Your task to perform on an android device: turn on the 24-hour format for clock Image 0: 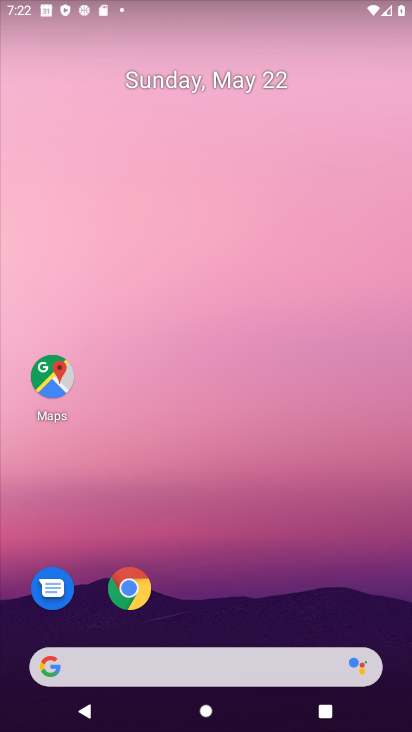
Step 0: drag from (250, 513) to (208, 30)
Your task to perform on an android device: turn on the 24-hour format for clock Image 1: 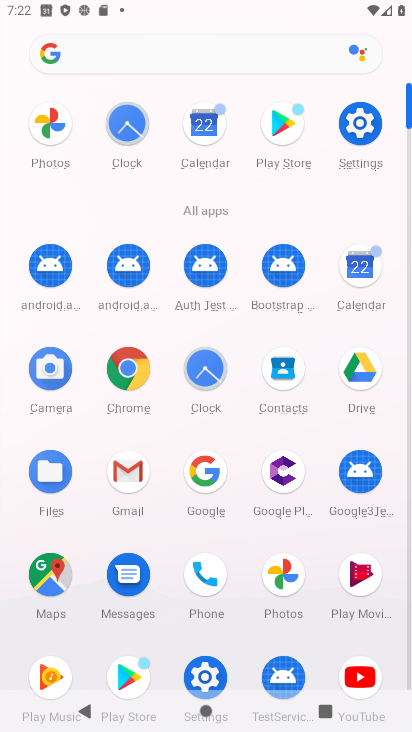
Step 1: click (126, 123)
Your task to perform on an android device: turn on the 24-hour format for clock Image 2: 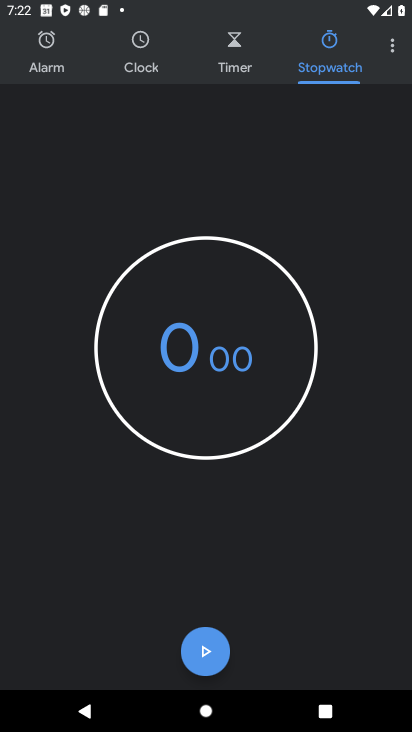
Step 2: click (391, 46)
Your task to perform on an android device: turn on the 24-hour format for clock Image 3: 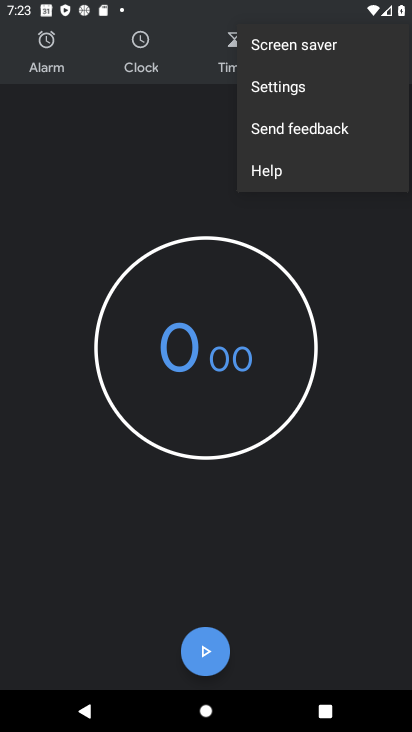
Step 3: click (269, 85)
Your task to perform on an android device: turn on the 24-hour format for clock Image 4: 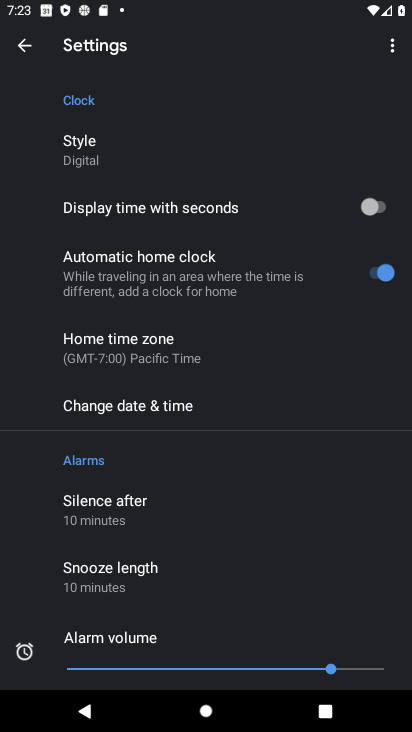
Step 4: click (156, 399)
Your task to perform on an android device: turn on the 24-hour format for clock Image 5: 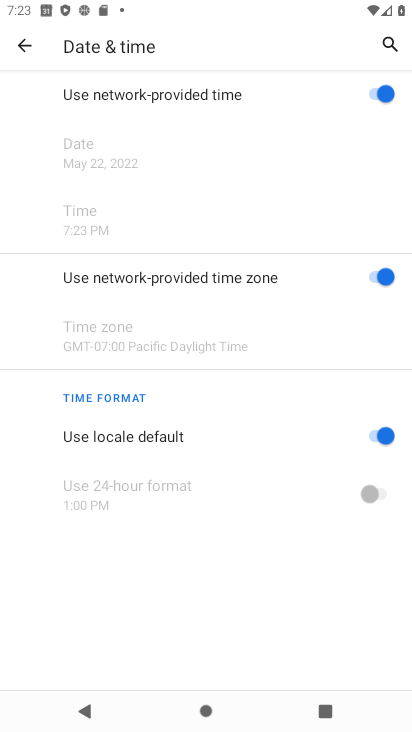
Step 5: click (390, 432)
Your task to perform on an android device: turn on the 24-hour format for clock Image 6: 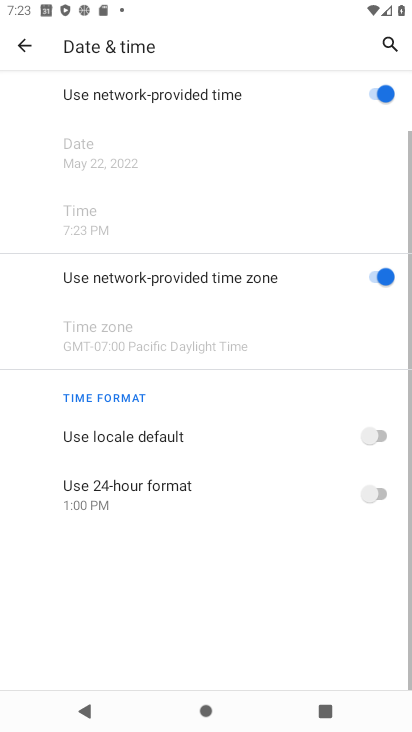
Step 6: click (370, 500)
Your task to perform on an android device: turn on the 24-hour format for clock Image 7: 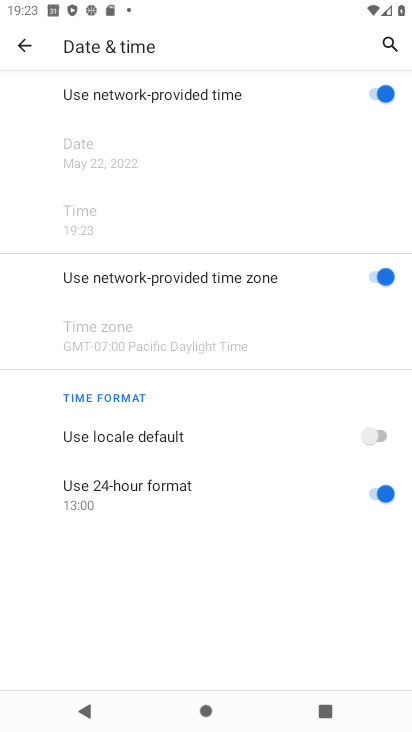
Step 7: task complete